Your task to perform on an android device: read, delete, or share a saved page in the chrome app Image 0: 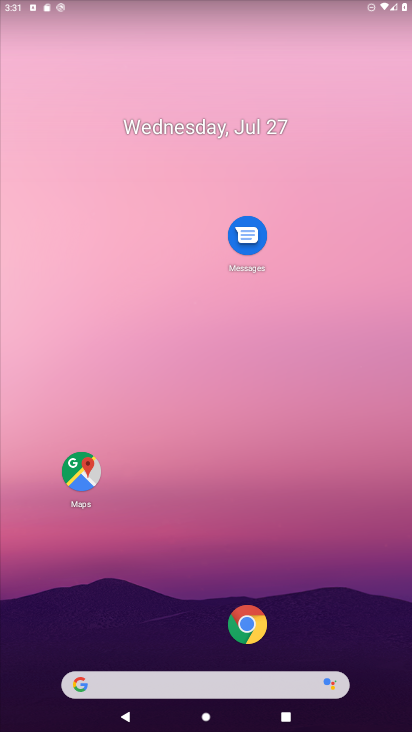
Step 0: click (246, 636)
Your task to perform on an android device: read, delete, or share a saved page in the chrome app Image 1: 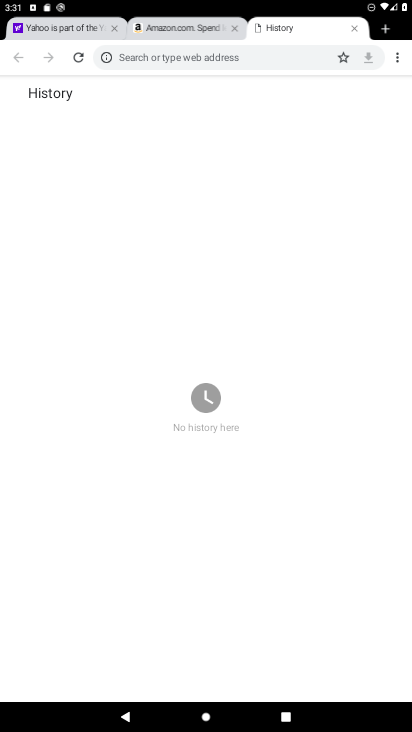
Step 1: click (405, 50)
Your task to perform on an android device: read, delete, or share a saved page in the chrome app Image 2: 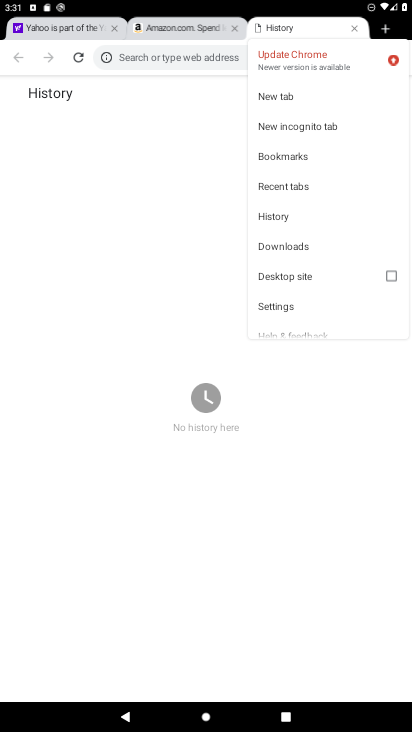
Step 2: click (284, 250)
Your task to perform on an android device: read, delete, or share a saved page in the chrome app Image 3: 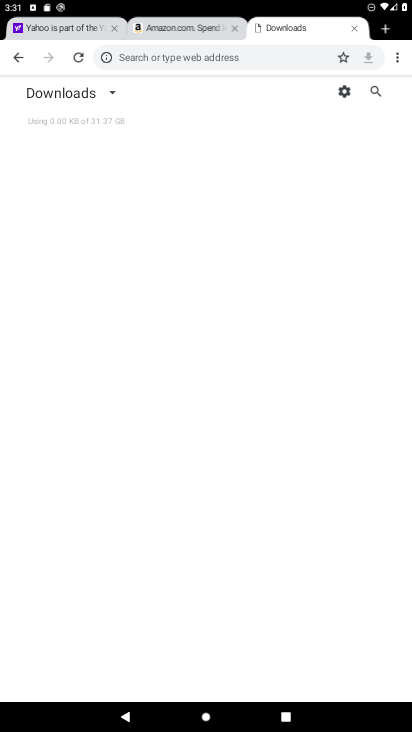
Step 3: task complete